Your task to perform on an android device: Is it going to rain this weekend? Image 0: 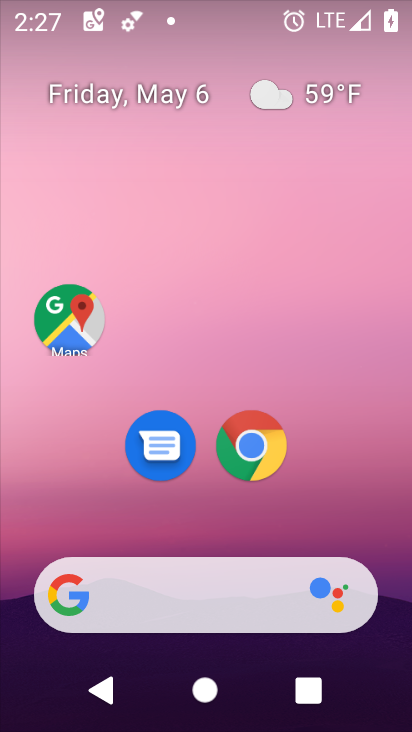
Step 0: drag from (347, 517) to (303, 106)
Your task to perform on an android device: Is it going to rain this weekend? Image 1: 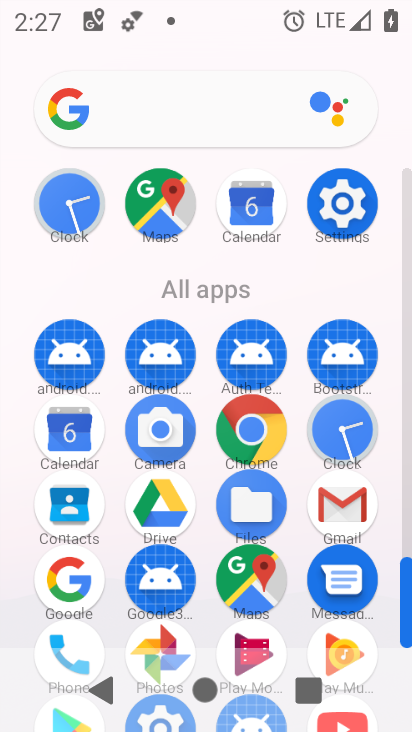
Step 1: click (177, 114)
Your task to perform on an android device: Is it going to rain this weekend? Image 2: 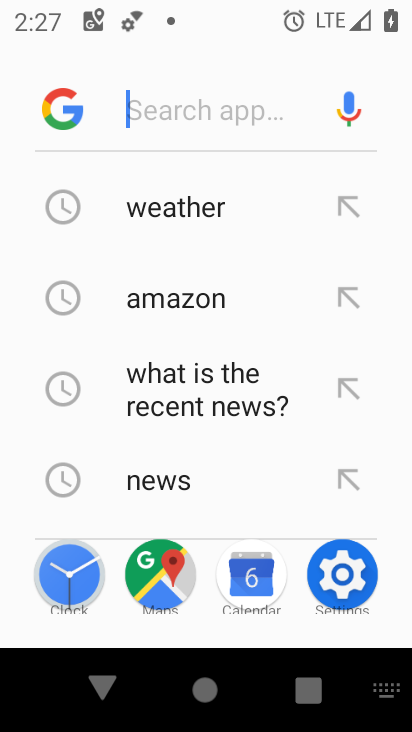
Step 2: type "is it going to rain this weekend"
Your task to perform on an android device: Is it going to rain this weekend? Image 3: 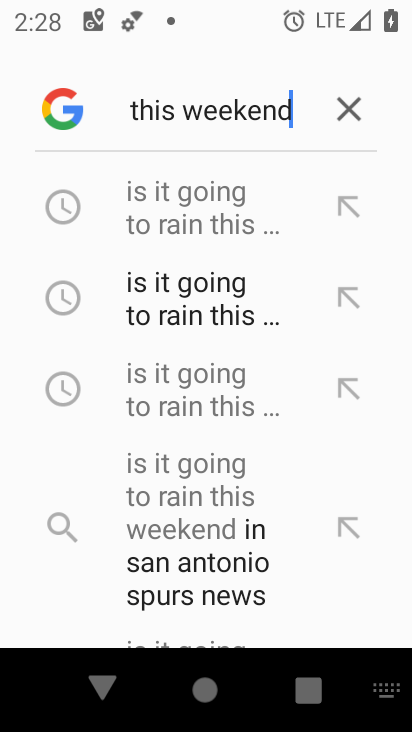
Step 3: click (202, 322)
Your task to perform on an android device: Is it going to rain this weekend? Image 4: 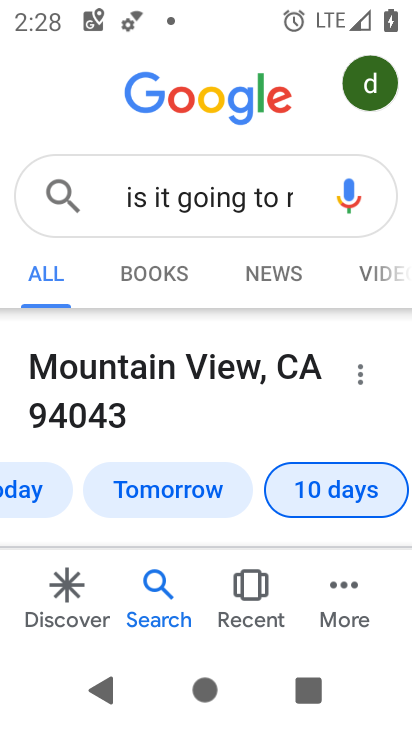
Step 4: task complete